Your task to perform on an android device: all mails in gmail Image 0: 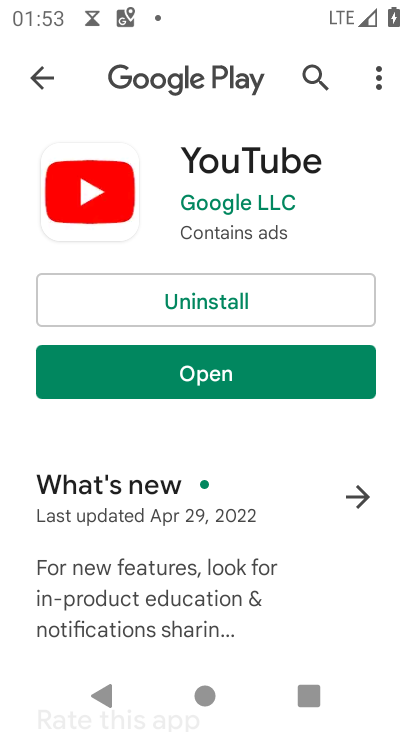
Step 0: press home button
Your task to perform on an android device: all mails in gmail Image 1: 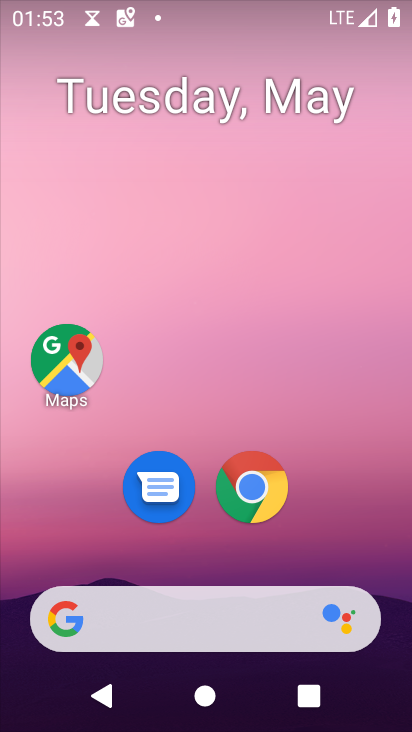
Step 1: drag from (390, 516) to (331, 0)
Your task to perform on an android device: all mails in gmail Image 2: 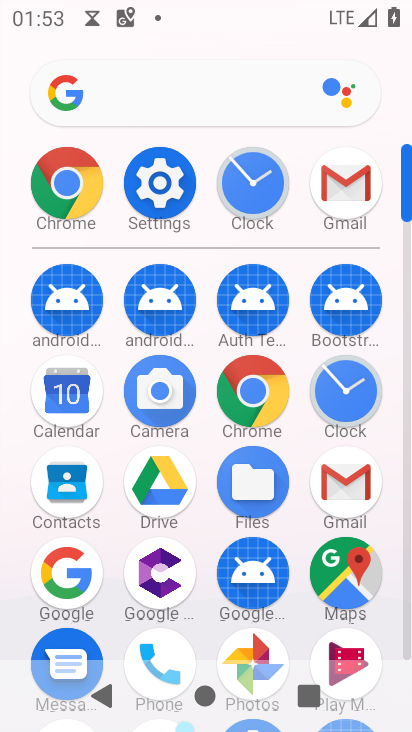
Step 2: click (365, 467)
Your task to perform on an android device: all mails in gmail Image 3: 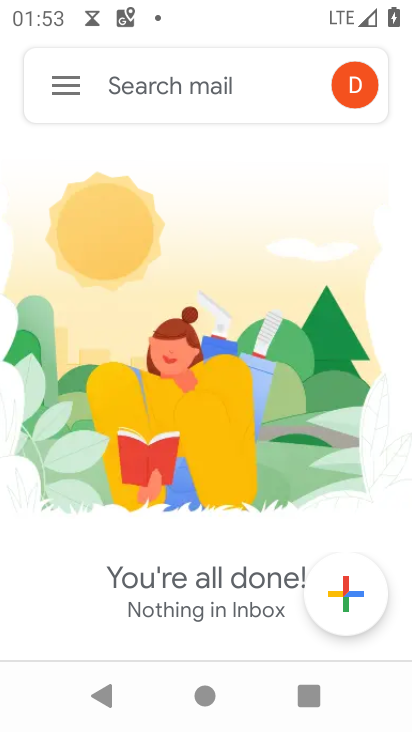
Step 3: click (69, 85)
Your task to perform on an android device: all mails in gmail Image 4: 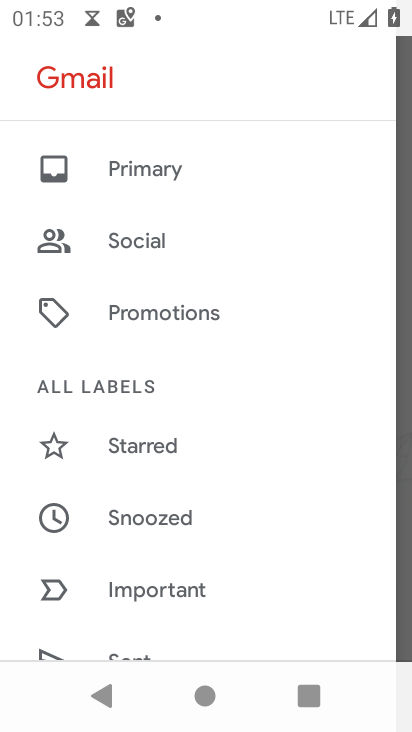
Step 4: drag from (275, 506) to (309, 31)
Your task to perform on an android device: all mails in gmail Image 5: 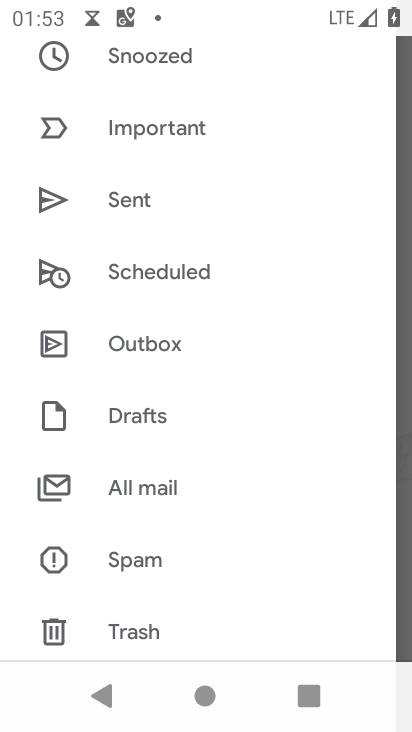
Step 5: drag from (228, 437) to (248, 260)
Your task to perform on an android device: all mails in gmail Image 6: 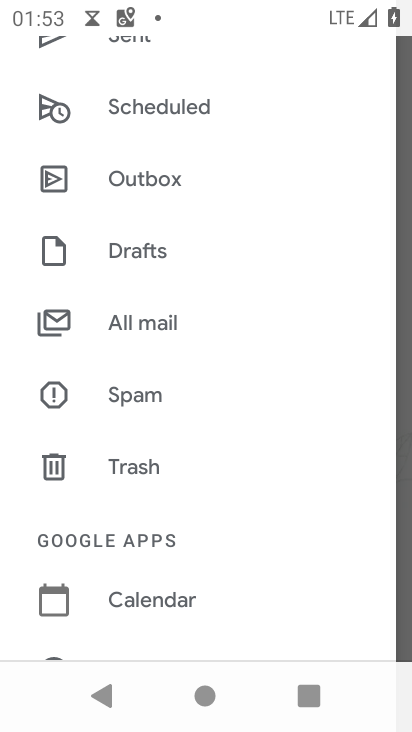
Step 6: click (165, 316)
Your task to perform on an android device: all mails in gmail Image 7: 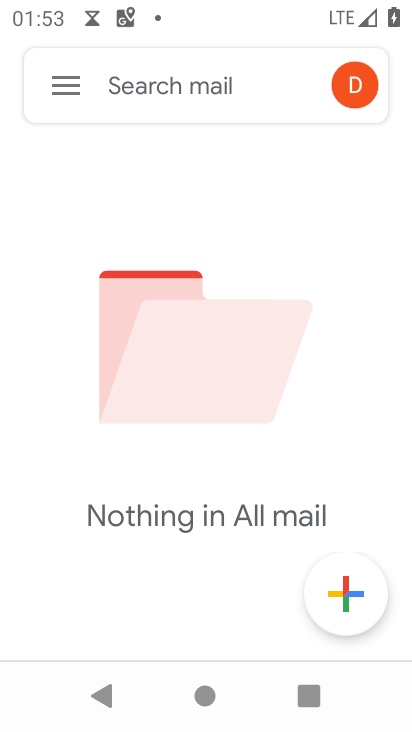
Step 7: task complete